Your task to perform on an android device: Go to Maps Image 0: 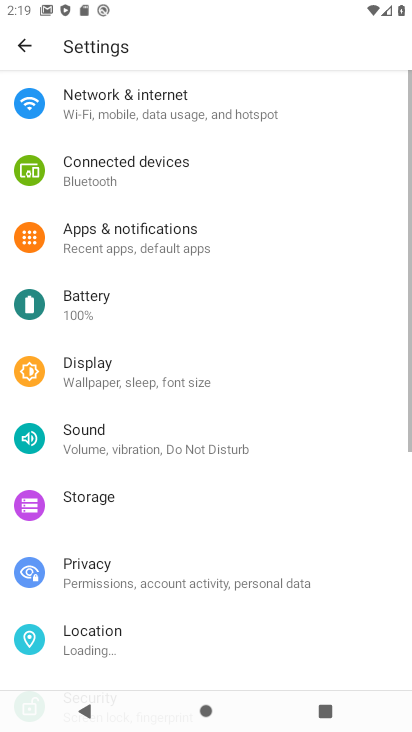
Step 0: click (378, 318)
Your task to perform on an android device: Go to Maps Image 1: 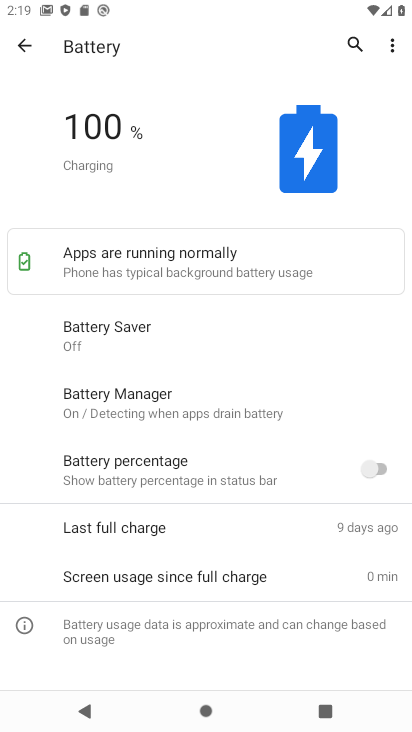
Step 1: press home button
Your task to perform on an android device: Go to Maps Image 2: 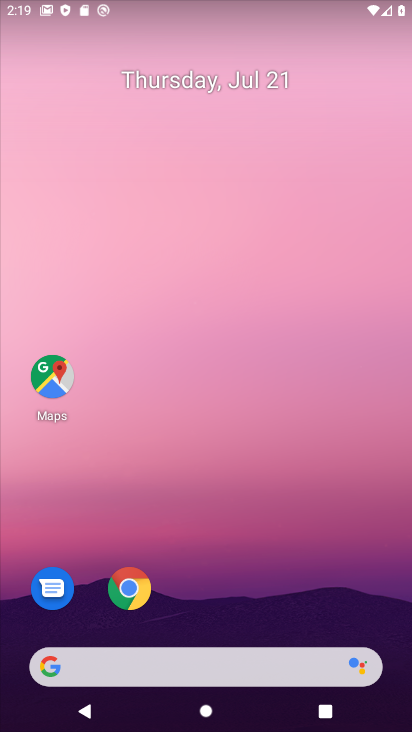
Step 2: drag from (264, 48) to (121, 149)
Your task to perform on an android device: Go to Maps Image 3: 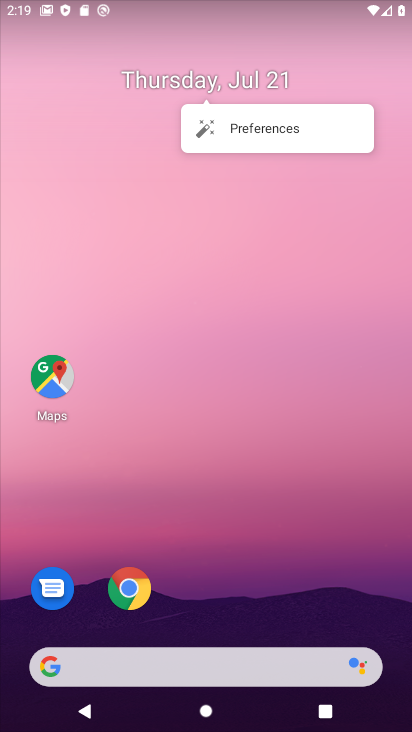
Step 3: drag from (176, 637) to (220, 53)
Your task to perform on an android device: Go to Maps Image 4: 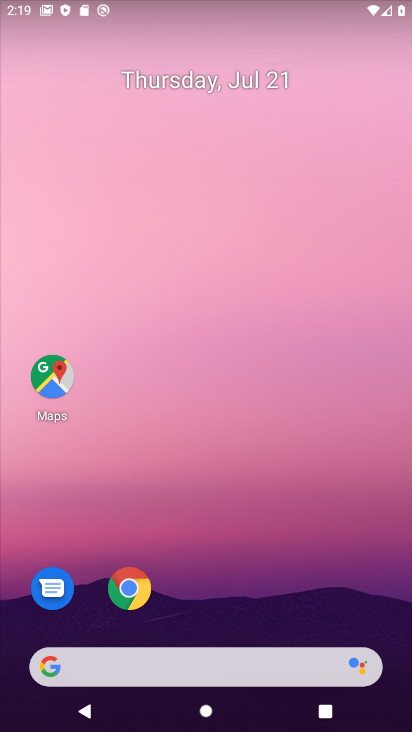
Step 4: drag from (168, 622) to (173, 29)
Your task to perform on an android device: Go to Maps Image 5: 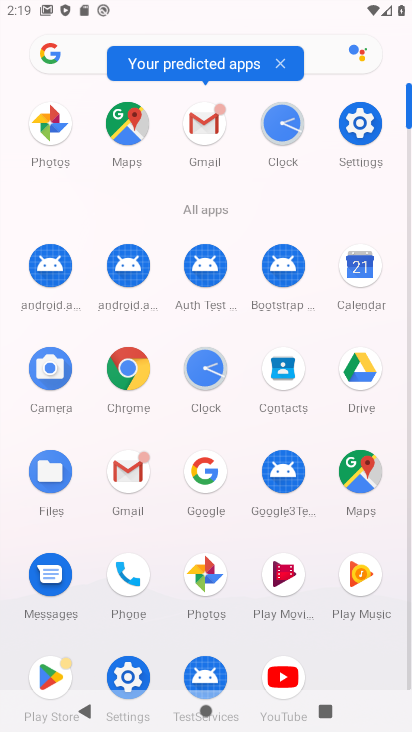
Step 5: click (363, 493)
Your task to perform on an android device: Go to Maps Image 6: 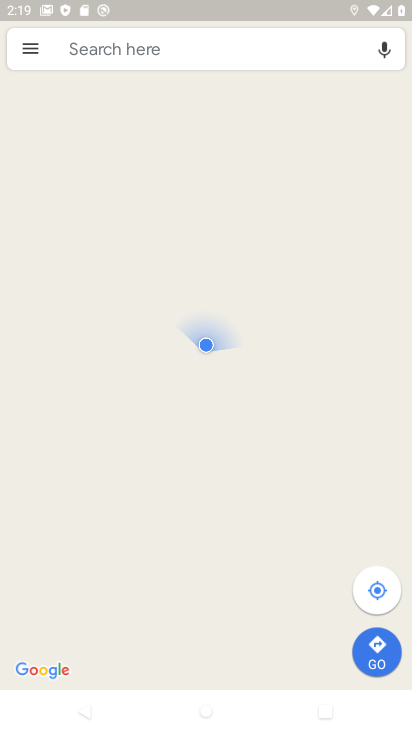
Step 6: task complete